Your task to perform on an android device: turn off airplane mode Image 0: 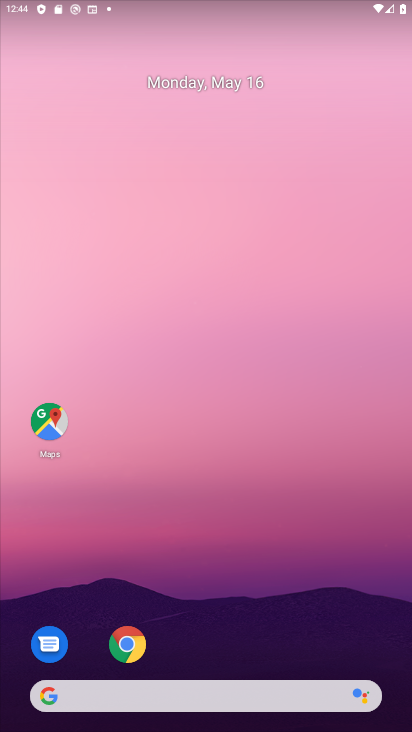
Step 0: drag from (206, 703) to (201, 382)
Your task to perform on an android device: turn off airplane mode Image 1: 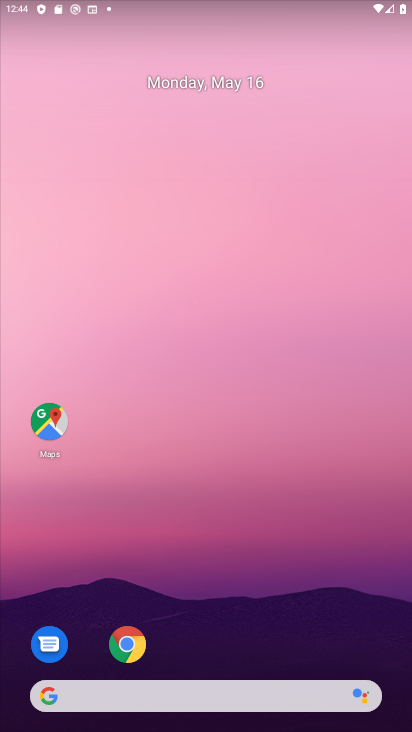
Step 1: drag from (224, 694) to (212, 395)
Your task to perform on an android device: turn off airplane mode Image 2: 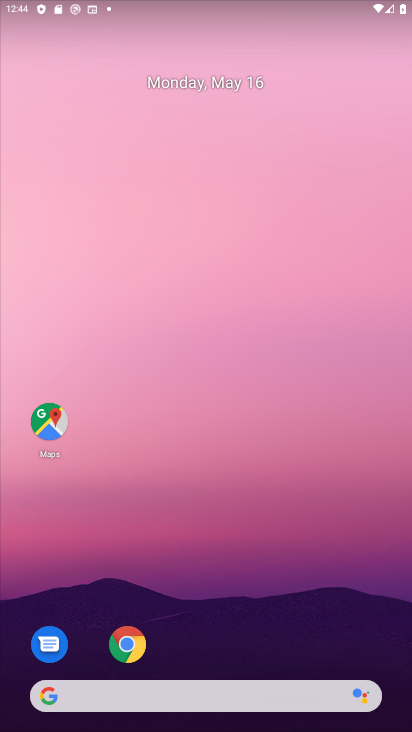
Step 2: drag from (192, 702) to (176, 176)
Your task to perform on an android device: turn off airplane mode Image 3: 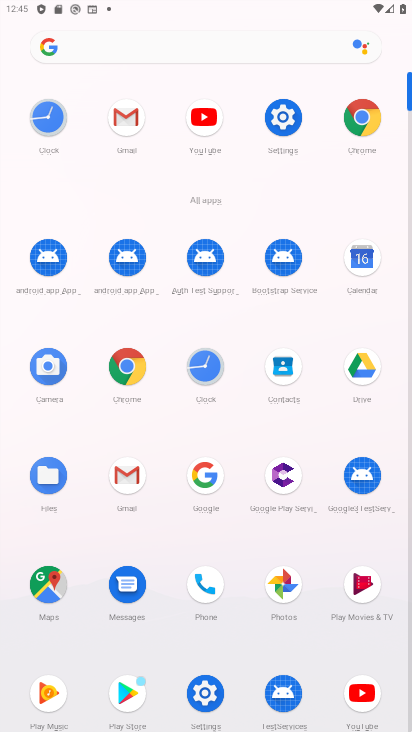
Step 3: click (273, 140)
Your task to perform on an android device: turn off airplane mode Image 4: 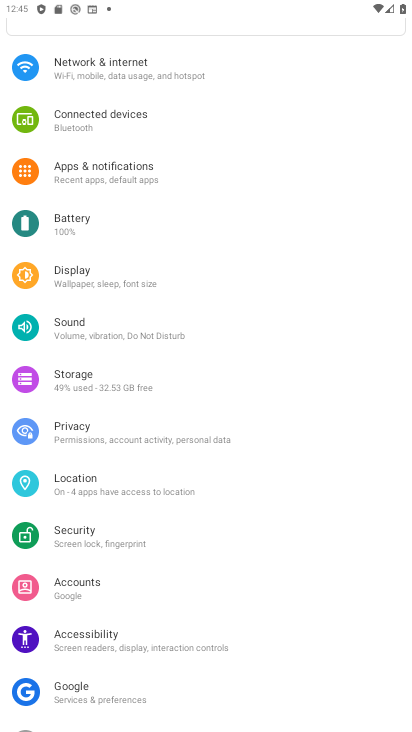
Step 4: click (77, 67)
Your task to perform on an android device: turn off airplane mode Image 5: 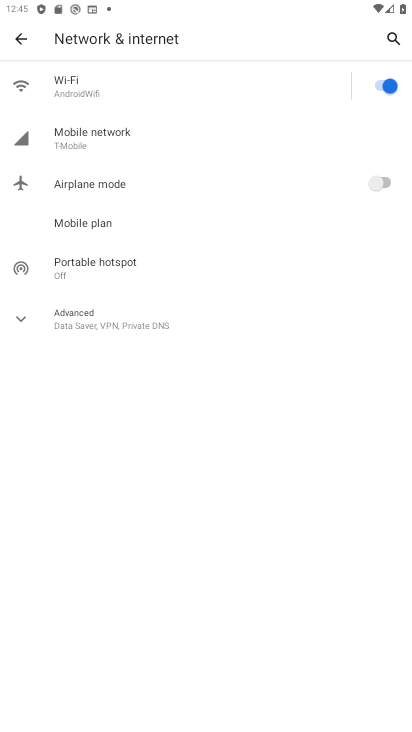
Step 5: task complete